Your task to perform on an android device: Go to Reddit.com Image 0: 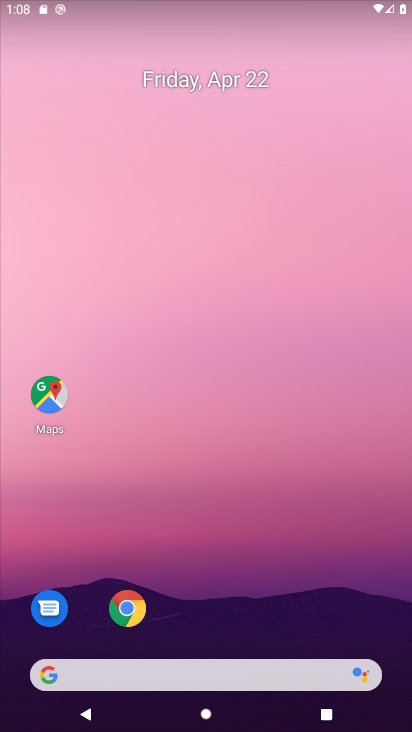
Step 0: click (131, 627)
Your task to perform on an android device: Go to Reddit.com Image 1: 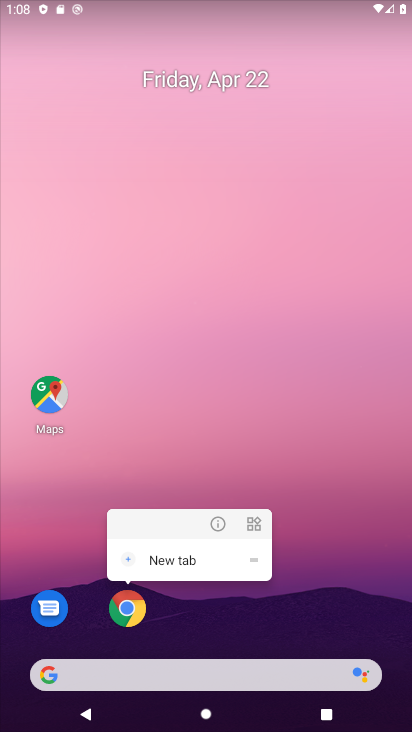
Step 1: click (115, 619)
Your task to perform on an android device: Go to Reddit.com Image 2: 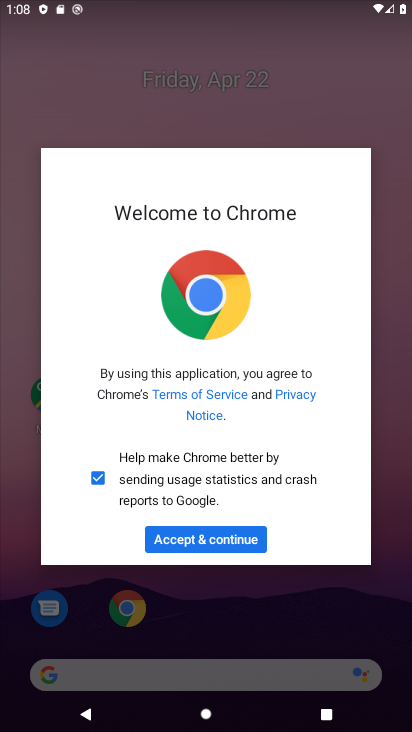
Step 2: click (219, 546)
Your task to perform on an android device: Go to Reddit.com Image 3: 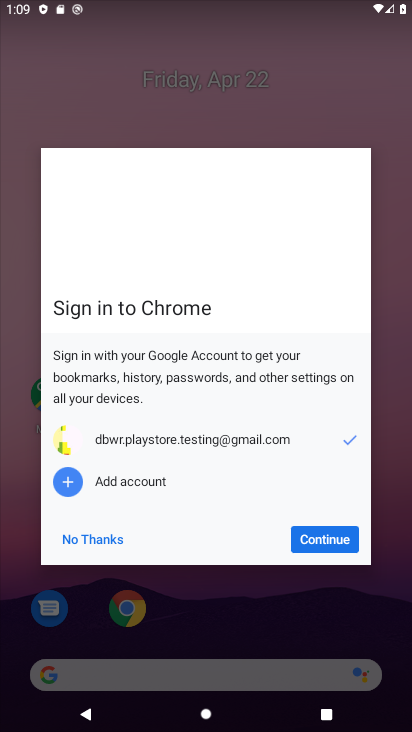
Step 3: click (338, 543)
Your task to perform on an android device: Go to Reddit.com Image 4: 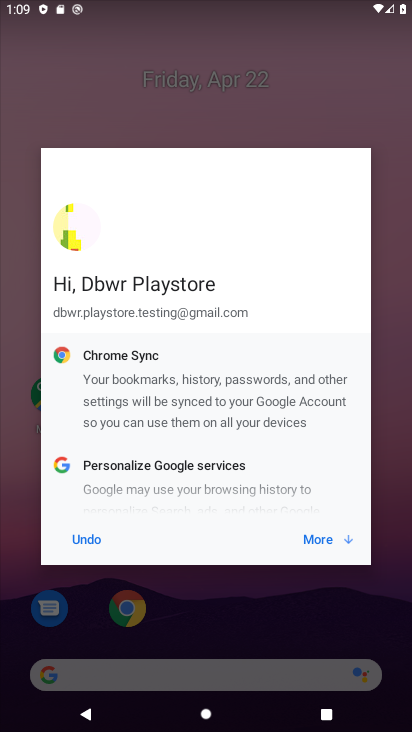
Step 4: click (324, 534)
Your task to perform on an android device: Go to Reddit.com Image 5: 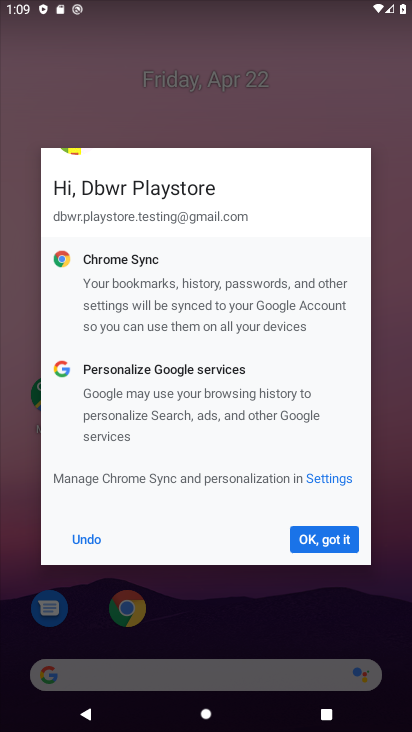
Step 5: click (324, 534)
Your task to perform on an android device: Go to Reddit.com Image 6: 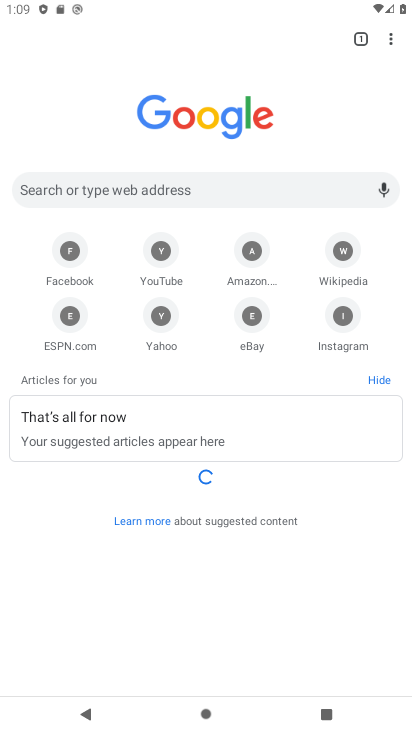
Step 6: click (234, 194)
Your task to perform on an android device: Go to Reddit.com Image 7: 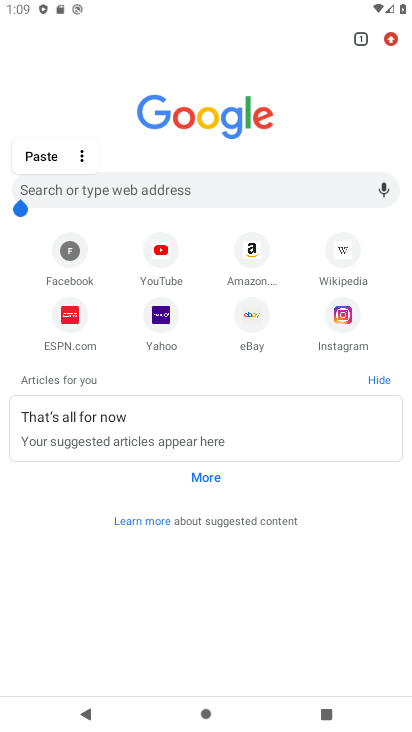
Step 7: type "reddit.com"
Your task to perform on an android device: Go to Reddit.com Image 8: 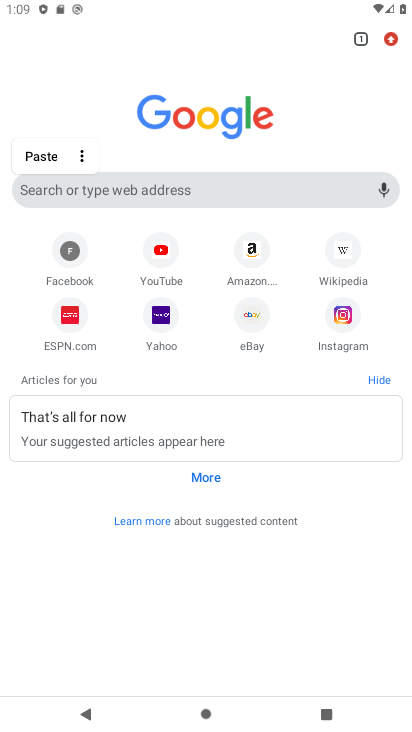
Step 8: click (235, 179)
Your task to perform on an android device: Go to Reddit.com Image 9: 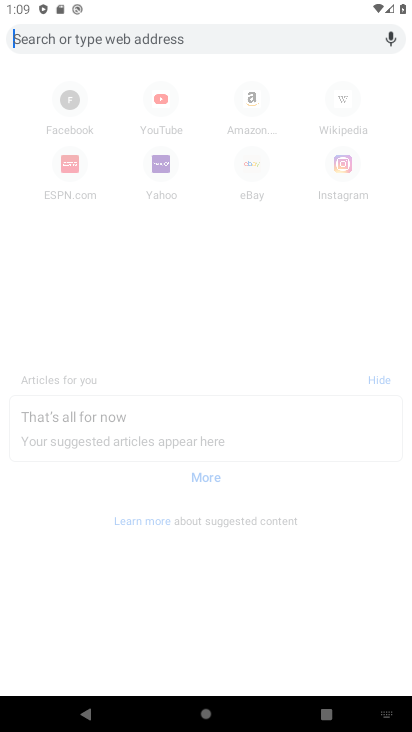
Step 9: type "reddit.com "
Your task to perform on an android device: Go to Reddit.com Image 10: 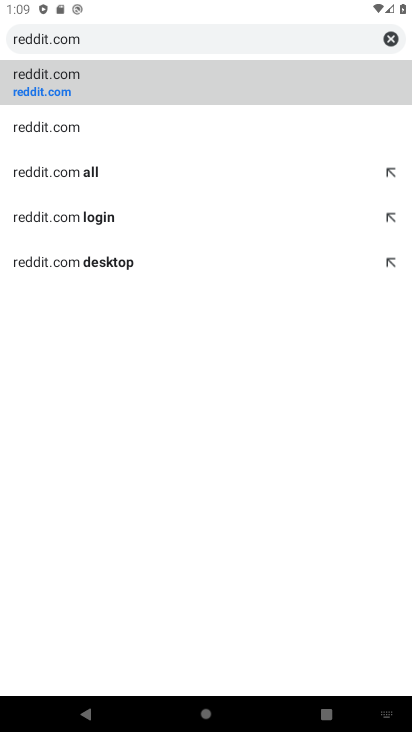
Step 10: type " "
Your task to perform on an android device: Go to Reddit.com Image 11: 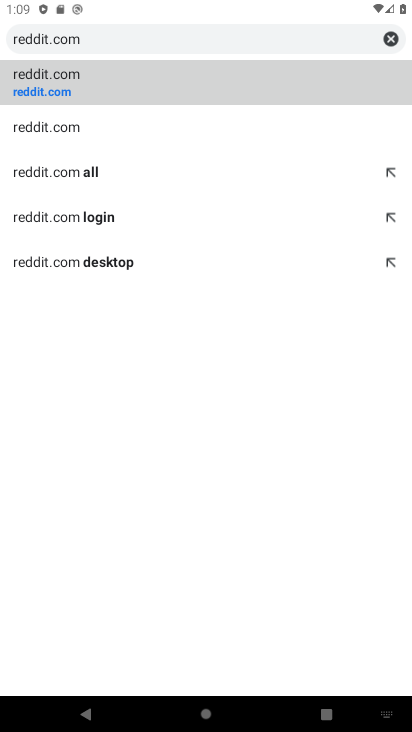
Step 11: click (183, 64)
Your task to perform on an android device: Go to Reddit.com Image 12: 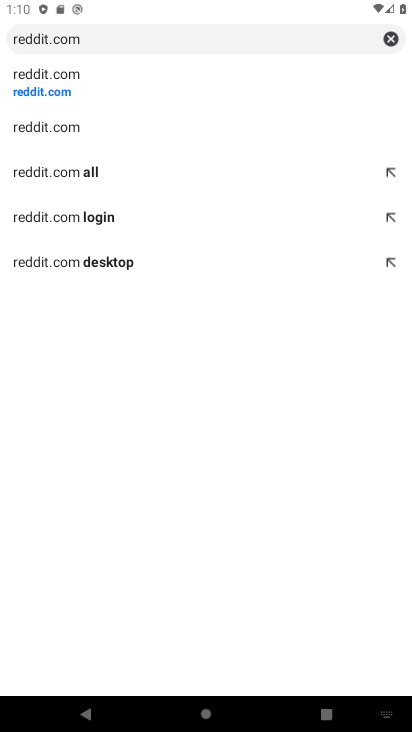
Step 12: click (63, 83)
Your task to perform on an android device: Go to Reddit.com Image 13: 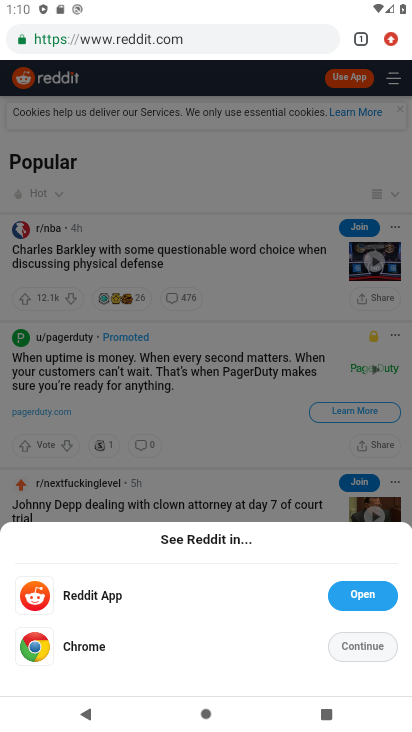
Step 13: task complete